Your task to perform on an android device: Go to CNN.com Image 0: 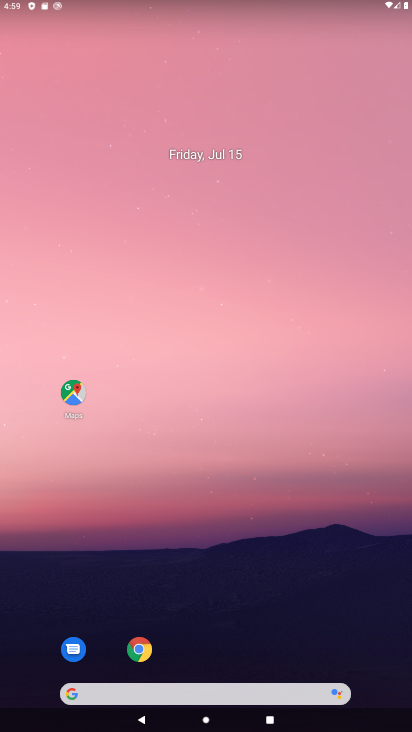
Step 0: click (140, 651)
Your task to perform on an android device: Go to CNN.com Image 1: 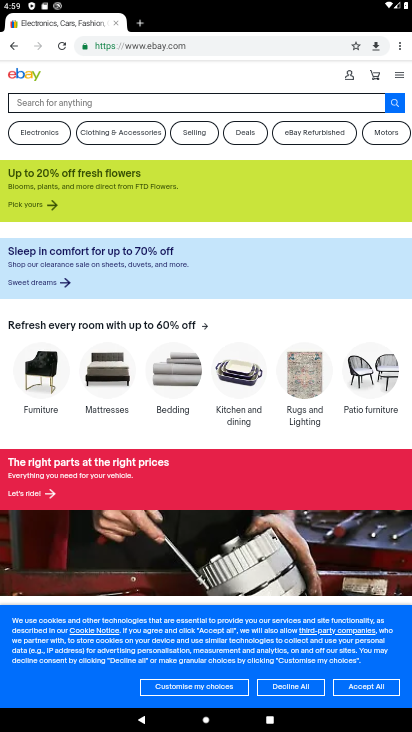
Step 1: click (270, 51)
Your task to perform on an android device: Go to CNN.com Image 2: 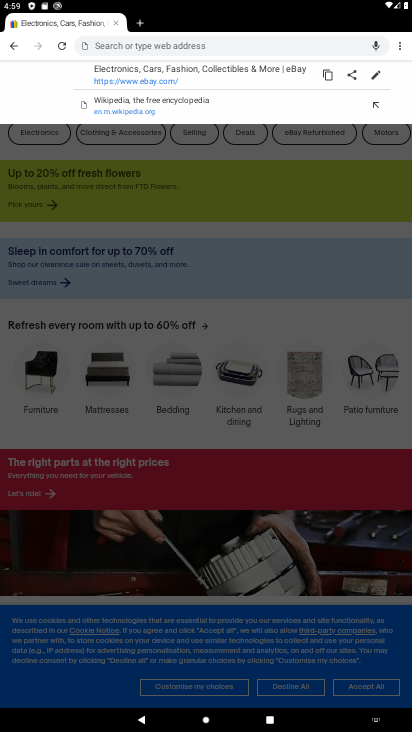
Step 2: type "CNN.com"
Your task to perform on an android device: Go to CNN.com Image 3: 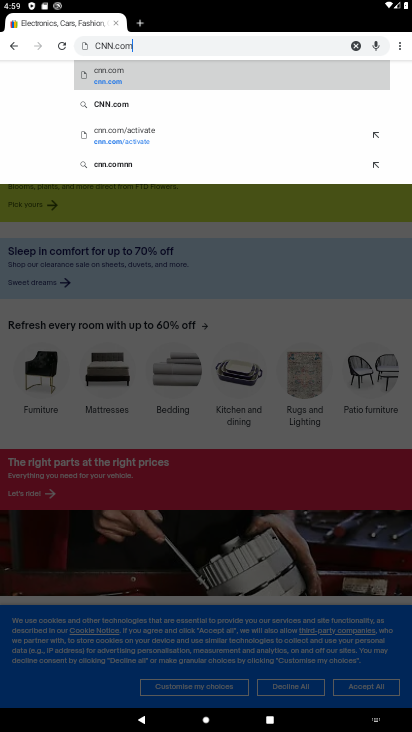
Step 3: click (138, 105)
Your task to perform on an android device: Go to CNN.com Image 4: 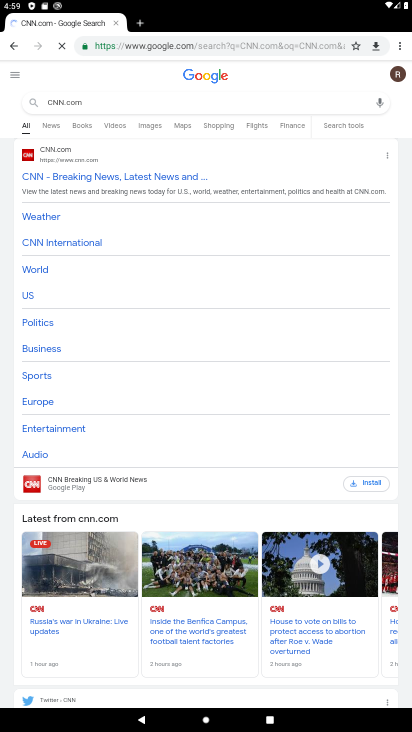
Step 4: click (83, 179)
Your task to perform on an android device: Go to CNN.com Image 5: 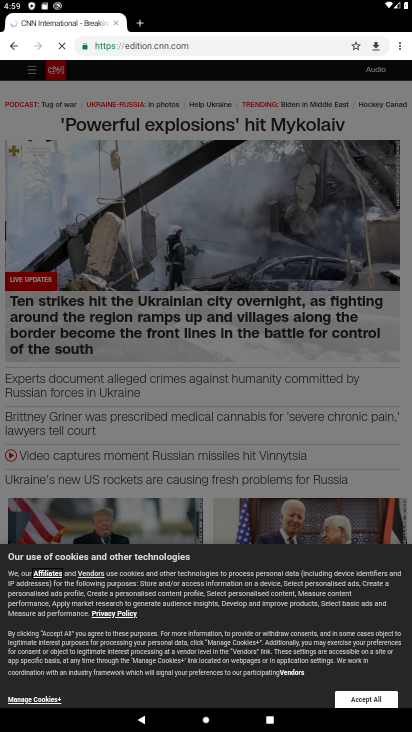
Step 5: task complete